Your task to perform on an android device: all mails in gmail Image 0: 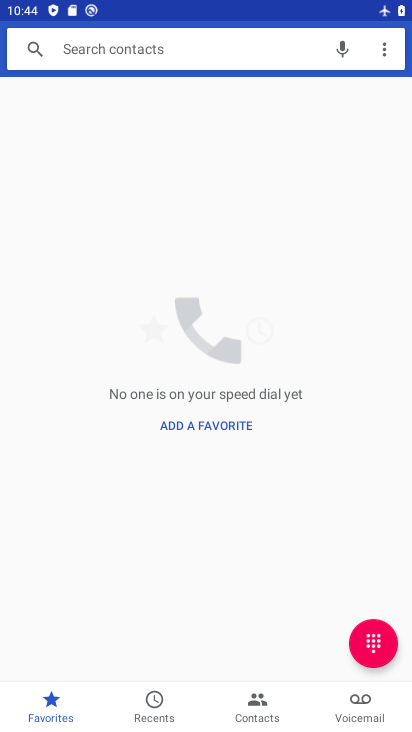
Step 0: press home button
Your task to perform on an android device: all mails in gmail Image 1: 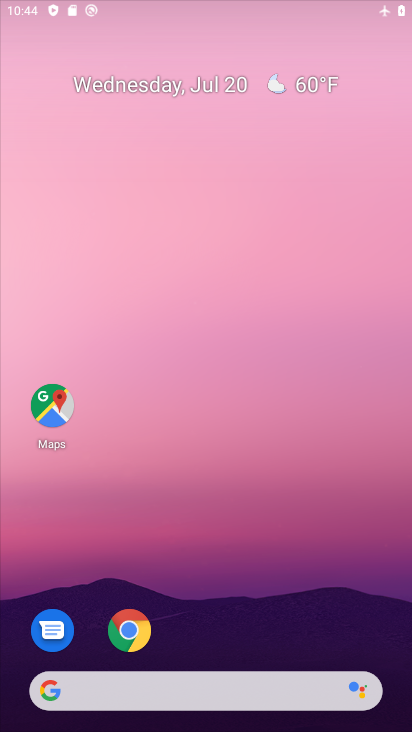
Step 1: drag from (220, 668) to (248, 64)
Your task to perform on an android device: all mails in gmail Image 2: 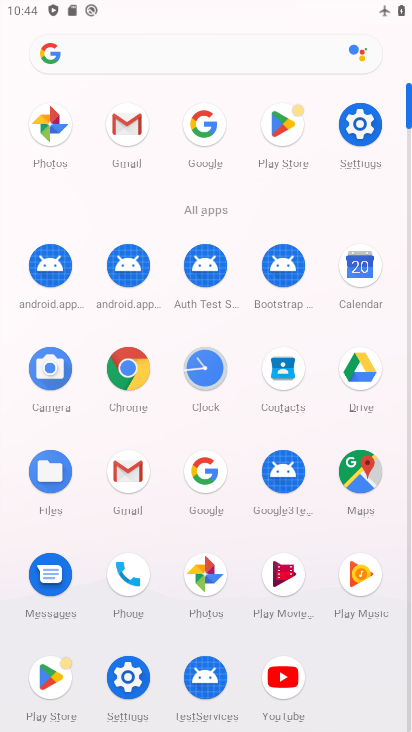
Step 2: click (118, 124)
Your task to perform on an android device: all mails in gmail Image 3: 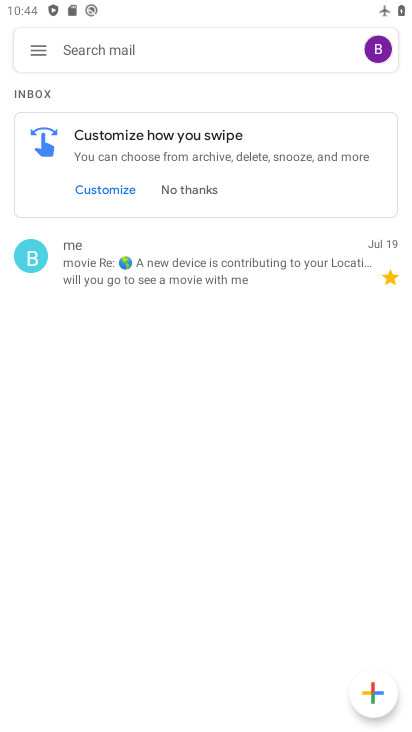
Step 3: click (37, 57)
Your task to perform on an android device: all mails in gmail Image 4: 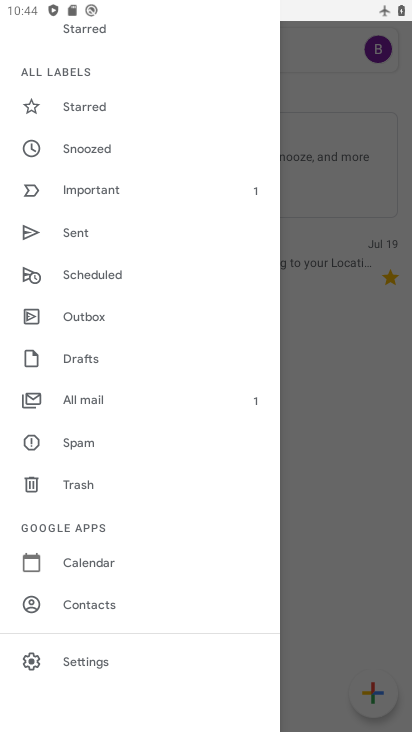
Step 4: click (63, 404)
Your task to perform on an android device: all mails in gmail Image 5: 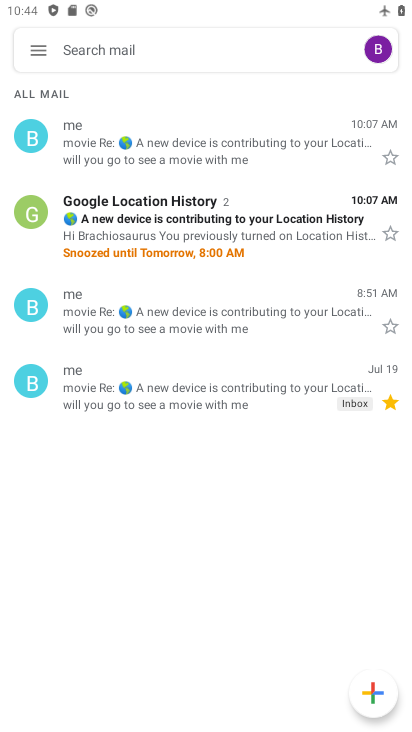
Step 5: task complete